Your task to perform on an android device: Open ESPN.com Image 0: 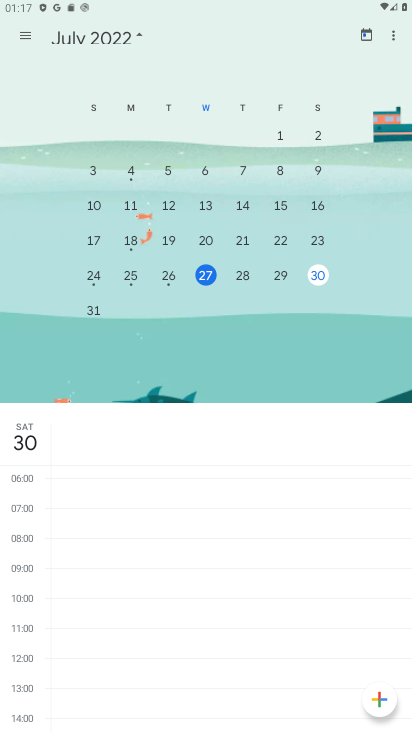
Step 0: press home button
Your task to perform on an android device: Open ESPN.com Image 1: 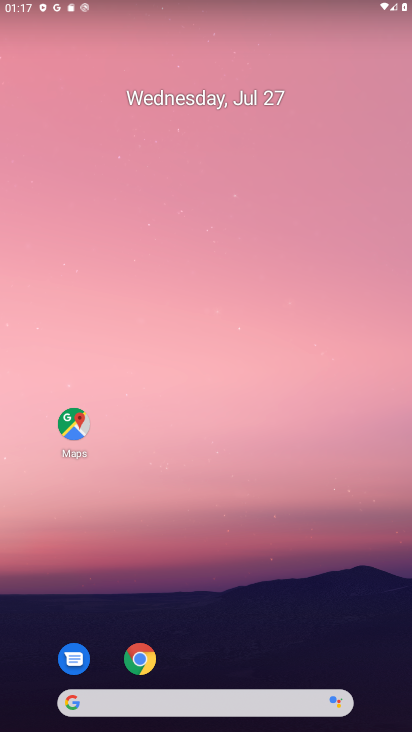
Step 1: click (145, 666)
Your task to perform on an android device: Open ESPN.com Image 2: 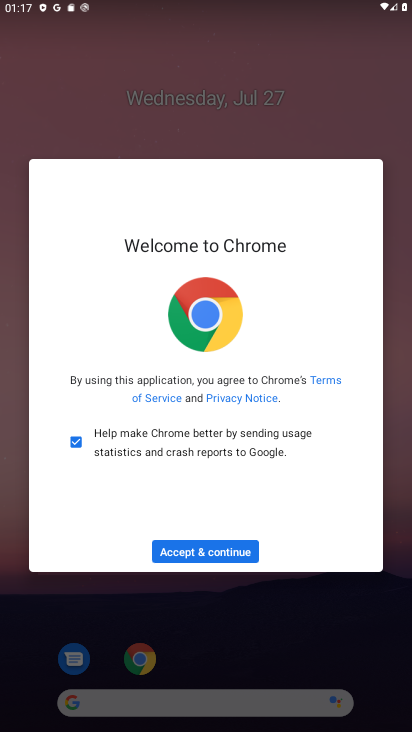
Step 2: click (242, 550)
Your task to perform on an android device: Open ESPN.com Image 3: 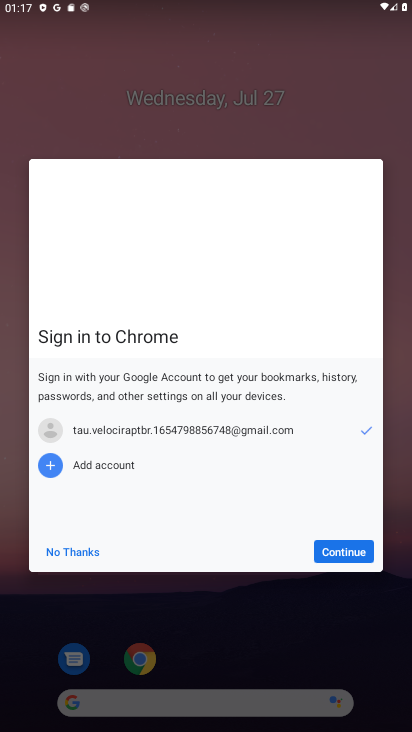
Step 3: click (336, 550)
Your task to perform on an android device: Open ESPN.com Image 4: 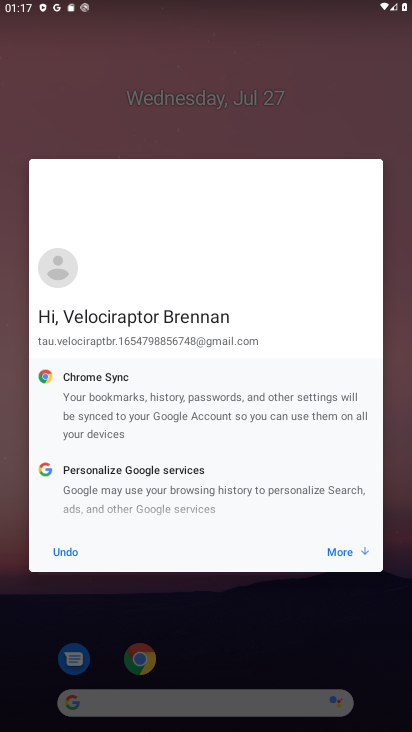
Step 4: click (336, 547)
Your task to perform on an android device: Open ESPN.com Image 5: 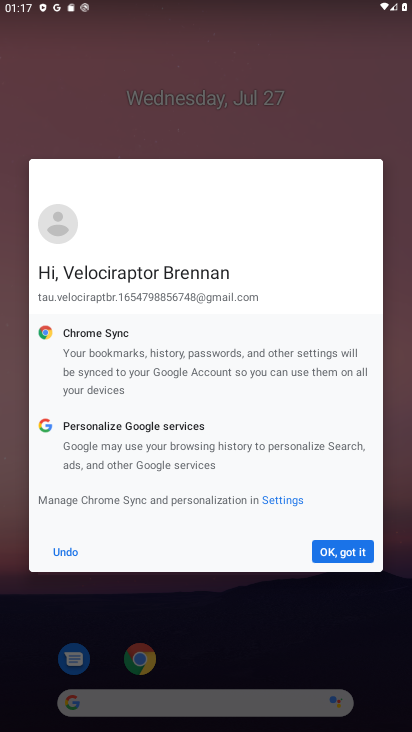
Step 5: click (335, 548)
Your task to perform on an android device: Open ESPN.com Image 6: 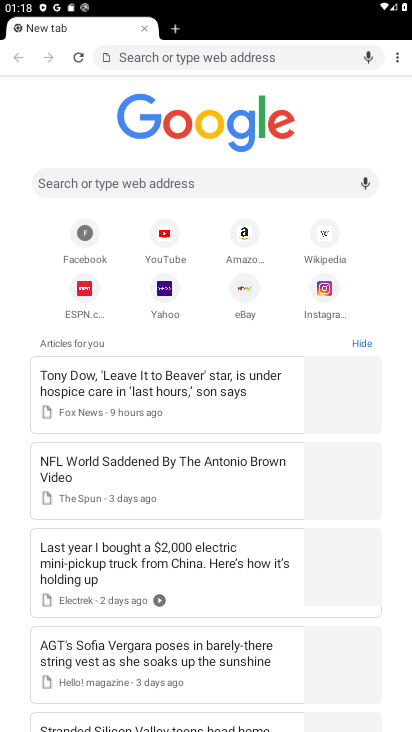
Step 6: click (84, 288)
Your task to perform on an android device: Open ESPN.com Image 7: 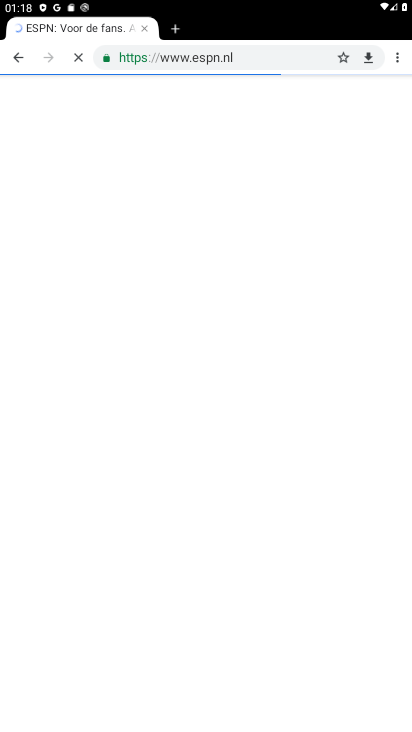
Step 7: task complete